Your task to perform on an android device: turn on translation in the chrome app Image 0: 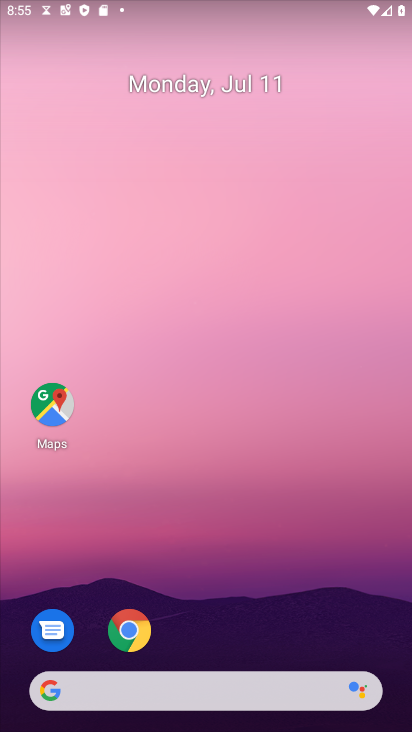
Step 0: press home button
Your task to perform on an android device: turn on translation in the chrome app Image 1: 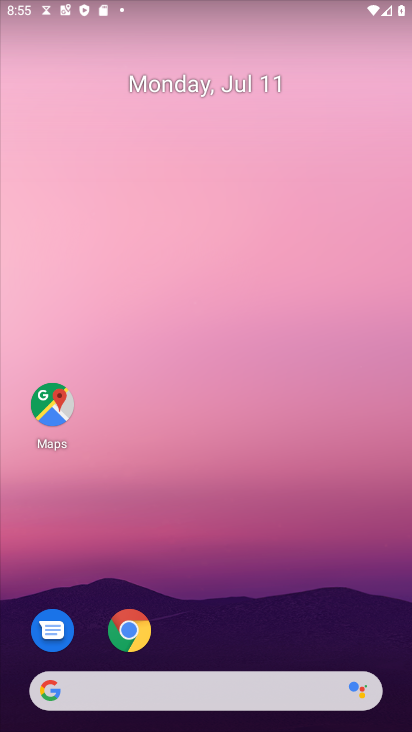
Step 1: click (127, 621)
Your task to perform on an android device: turn on translation in the chrome app Image 2: 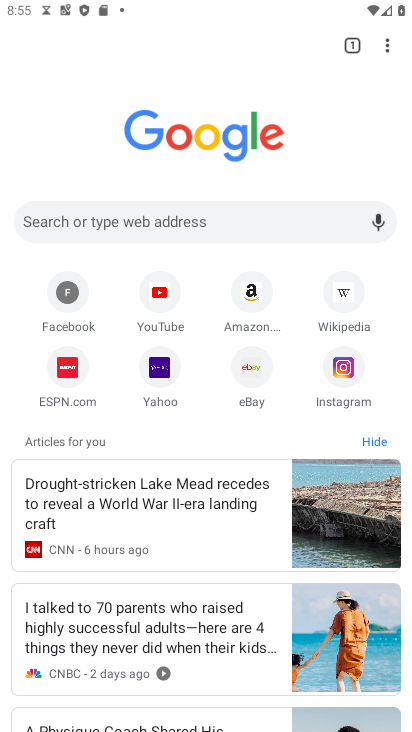
Step 2: click (385, 41)
Your task to perform on an android device: turn on translation in the chrome app Image 3: 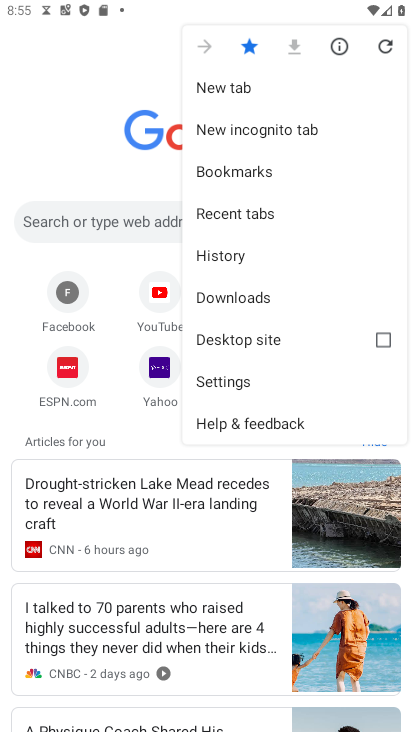
Step 3: click (264, 379)
Your task to perform on an android device: turn on translation in the chrome app Image 4: 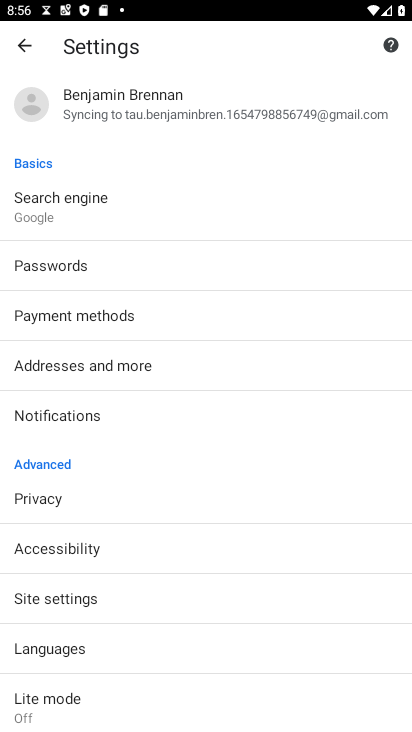
Step 4: click (94, 653)
Your task to perform on an android device: turn on translation in the chrome app Image 5: 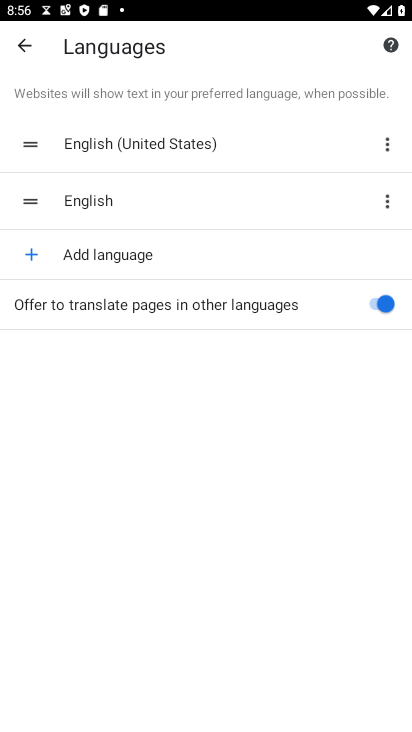
Step 5: task complete